Your task to perform on an android device: turn on improve location accuracy Image 0: 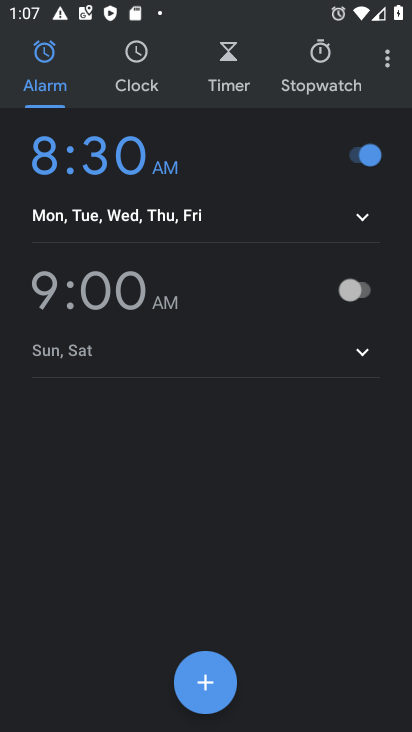
Step 0: press home button
Your task to perform on an android device: turn on improve location accuracy Image 1: 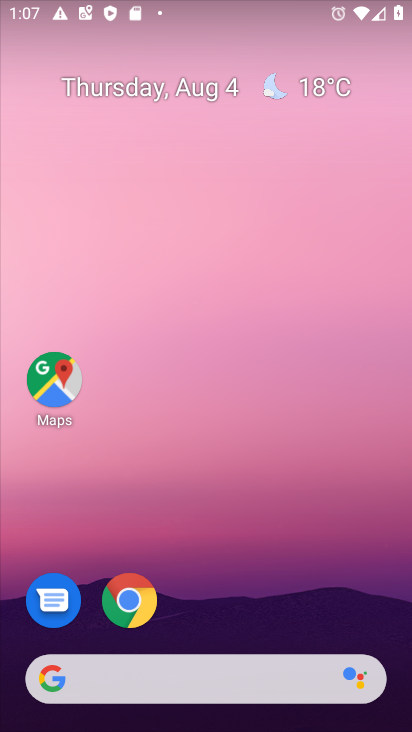
Step 1: drag from (183, 690) to (338, 134)
Your task to perform on an android device: turn on improve location accuracy Image 2: 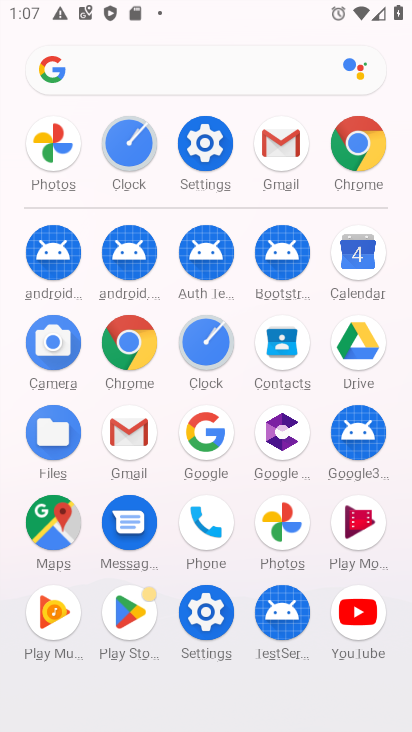
Step 2: click (207, 148)
Your task to perform on an android device: turn on improve location accuracy Image 3: 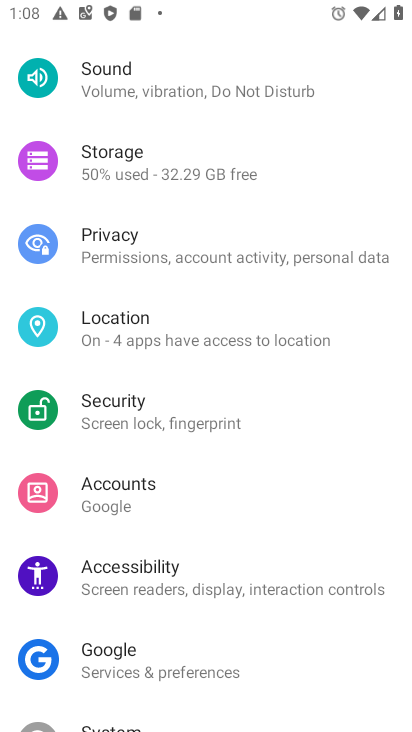
Step 3: click (146, 330)
Your task to perform on an android device: turn on improve location accuracy Image 4: 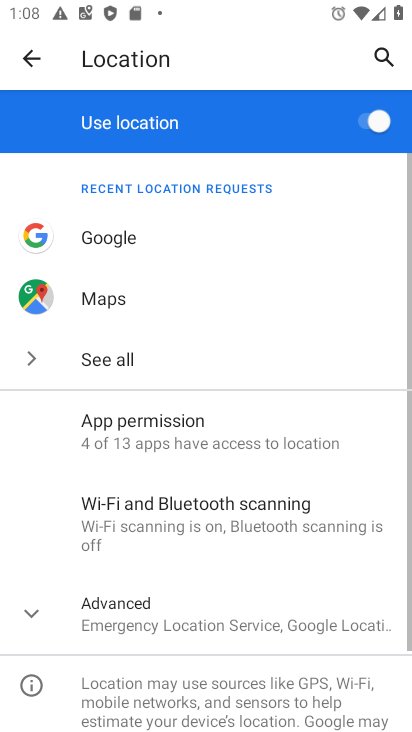
Step 4: click (162, 623)
Your task to perform on an android device: turn on improve location accuracy Image 5: 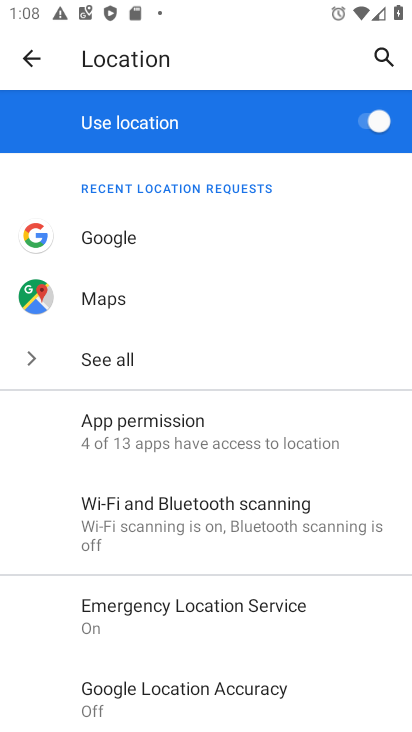
Step 5: drag from (215, 630) to (322, 299)
Your task to perform on an android device: turn on improve location accuracy Image 6: 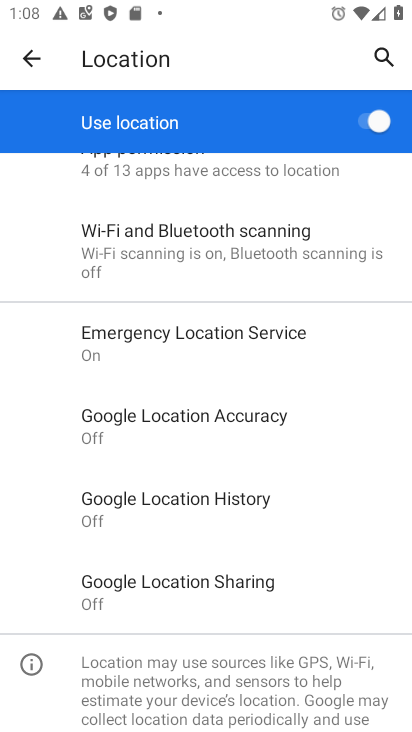
Step 6: click (226, 408)
Your task to perform on an android device: turn on improve location accuracy Image 7: 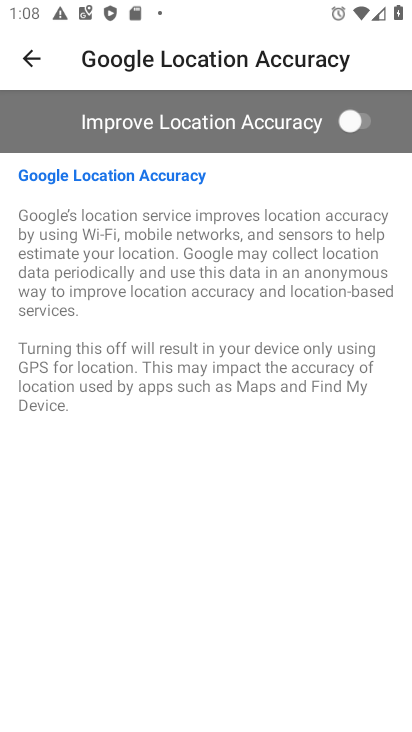
Step 7: click (359, 123)
Your task to perform on an android device: turn on improve location accuracy Image 8: 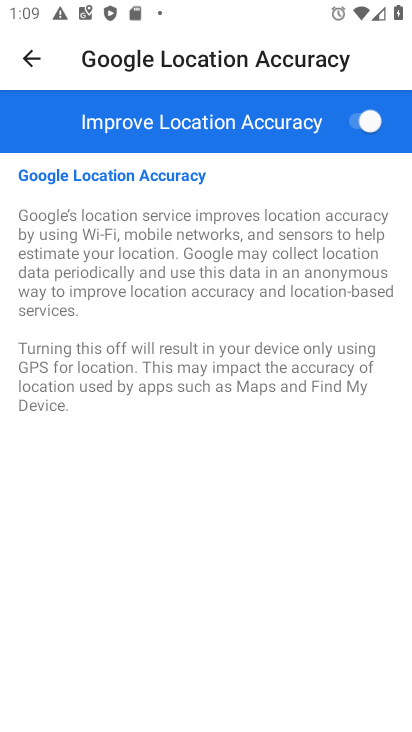
Step 8: task complete